Your task to perform on an android device: Search for sushi restaurants on Maps Image 0: 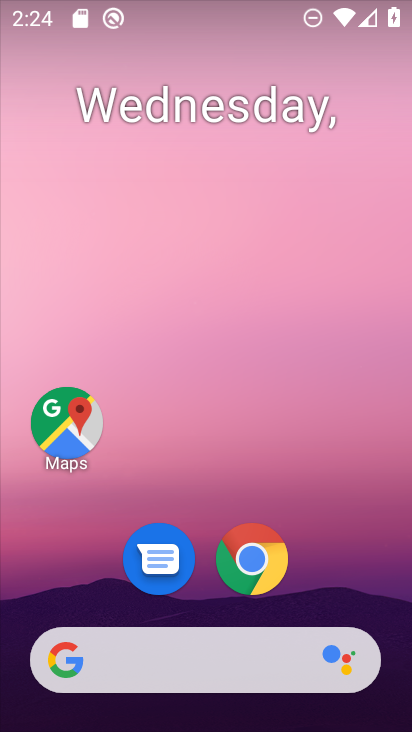
Step 0: click (114, 418)
Your task to perform on an android device: Search for sushi restaurants on Maps Image 1: 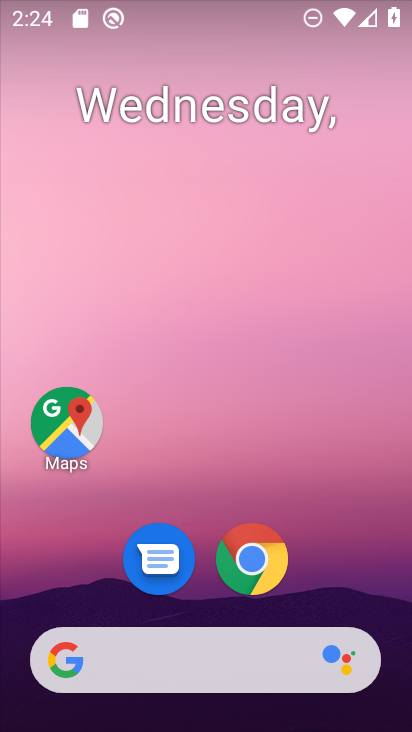
Step 1: click (47, 448)
Your task to perform on an android device: Search for sushi restaurants on Maps Image 2: 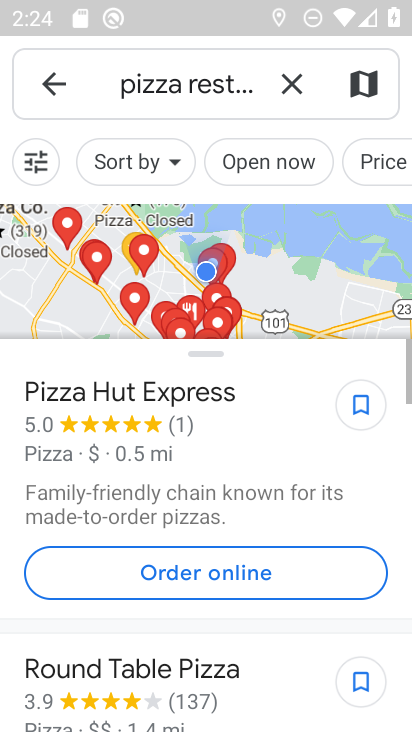
Step 2: click (59, 81)
Your task to perform on an android device: Search for sushi restaurants on Maps Image 3: 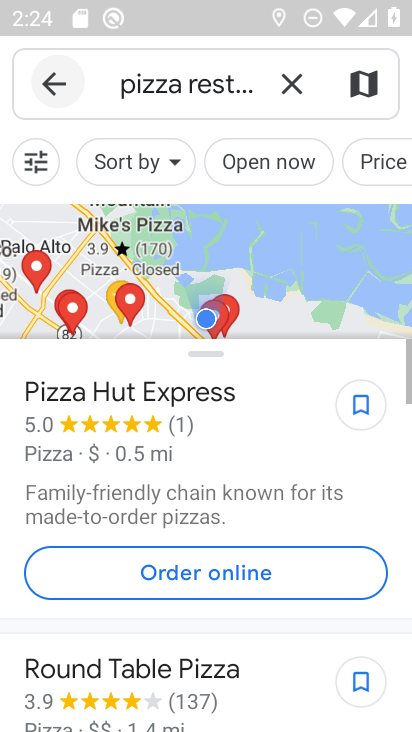
Step 3: click (151, 92)
Your task to perform on an android device: Search for sushi restaurants on Maps Image 4: 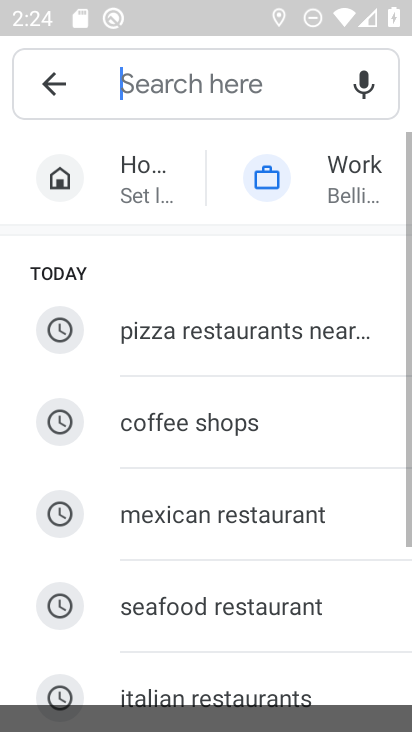
Step 4: click (151, 92)
Your task to perform on an android device: Search for sushi restaurants on Maps Image 5: 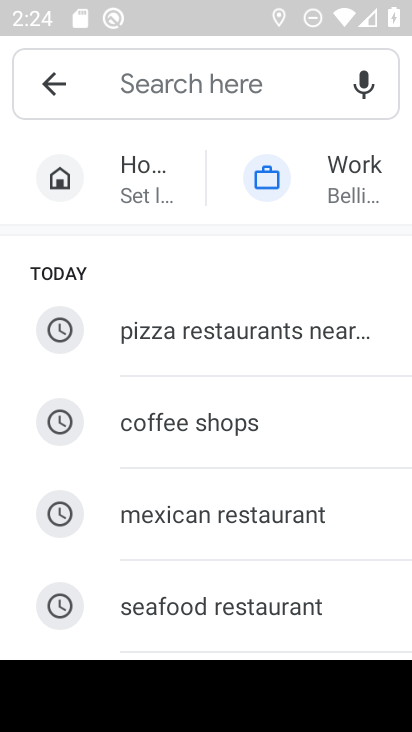
Step 5: type "sushi restaurants"
Your task to perform on an android device: Search for sushi restaurants on Maps Image 6: 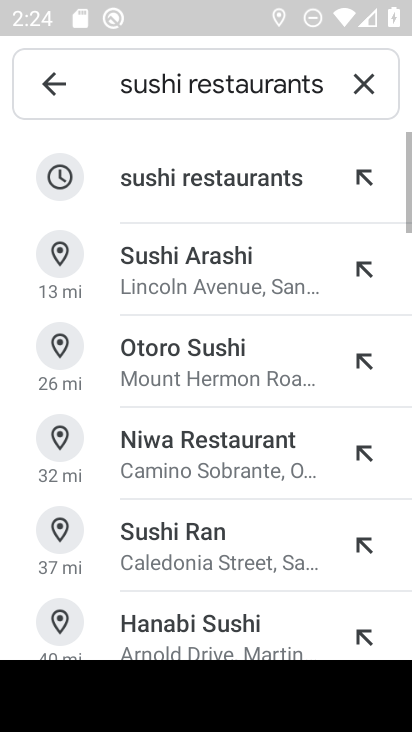
Step 6: click (139, 150)
Your task to perform on an android device: Search for sushi restaurants on Maps Image 7: 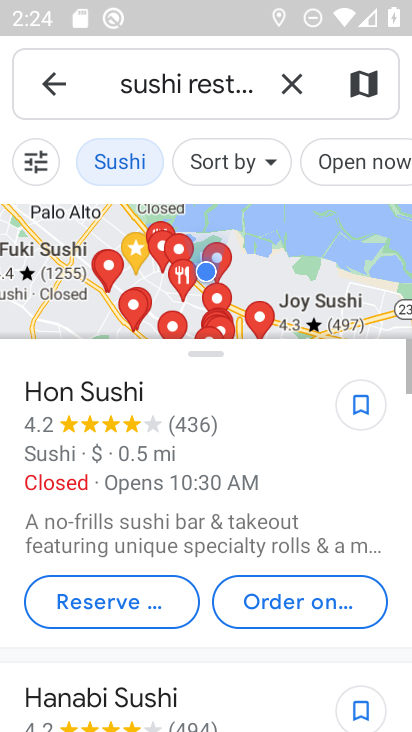
Step 7: task complete